Your task to perform on an android device: remove spam from my inbox in the gmail app Image 0: 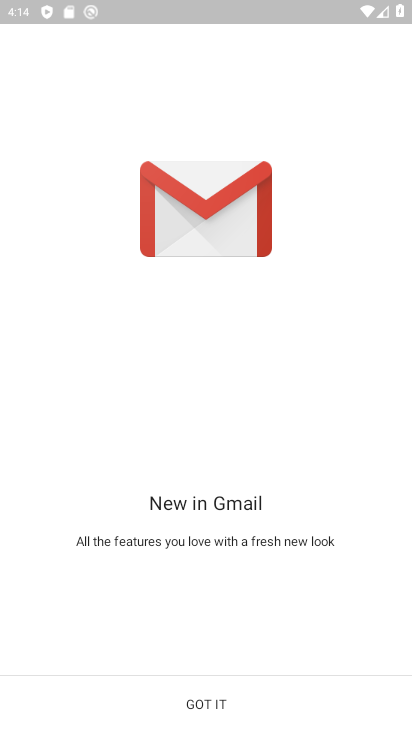
Step 0: click (208, 700)
Your task to perform on an android device: remove spam from my inbox in the gmail app Image 1: 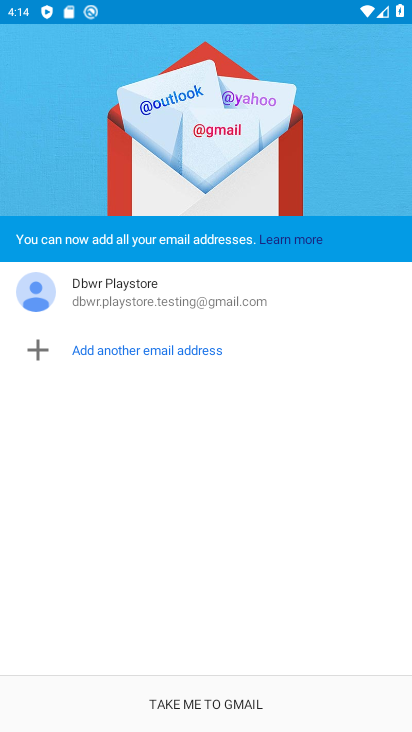
Step 1: click (208, 700)
Your task to perform on an android device: remove spam from my inbox in the gmail app Image 2: 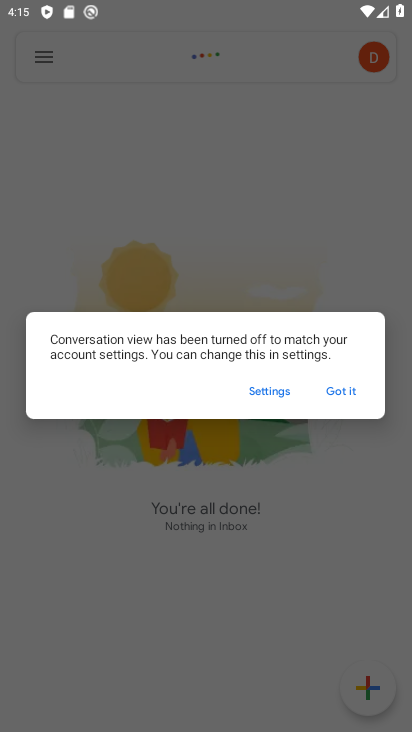
Step 2: click (329, 383)
Your task to perform on an android device: remove spam from my inbox in the gmail app Image 3: 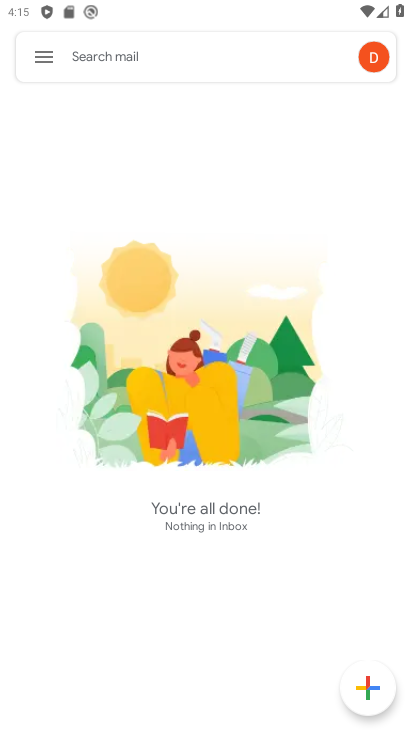
Step 3: click (43, 56)
Your task to perform on an android device: remove spam from my inbox in the gmail app Image 4: 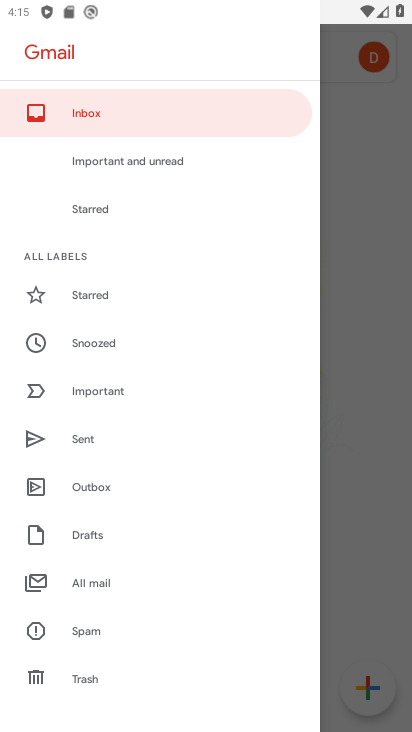
Step 4: click (105, 628)
Your task to perform on an android device: remove spam from my inbox in the gmail app Image 5: 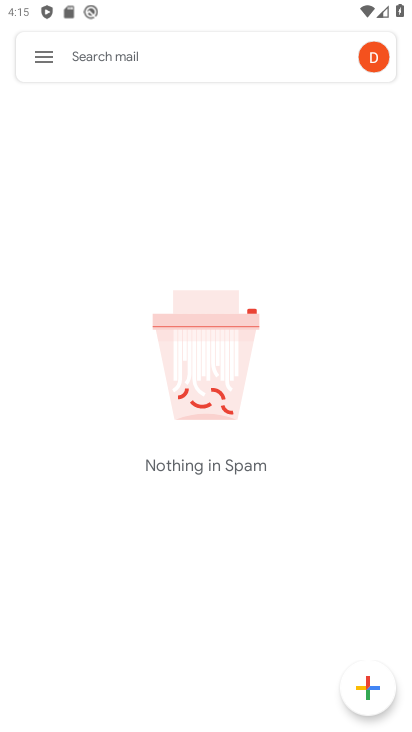
Step 5: task complete